Your task to perform on an android device: turn off smart reply in the gmail app Image 0: 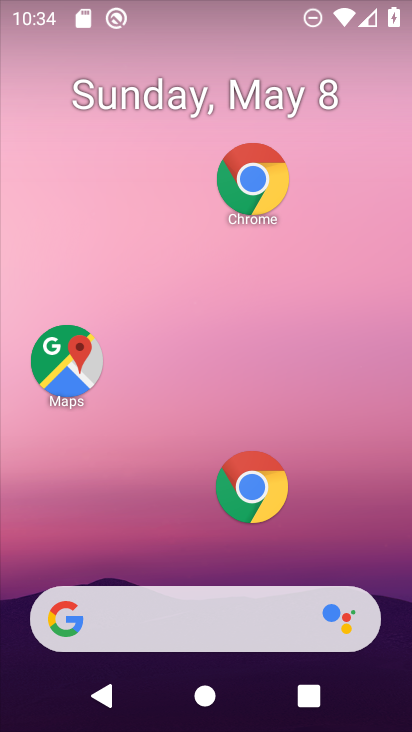
Step 0: drag from (166, 515) to (155, 38)
Your task to perform on an android device: turn off smart reply in the gmail app Image 1: 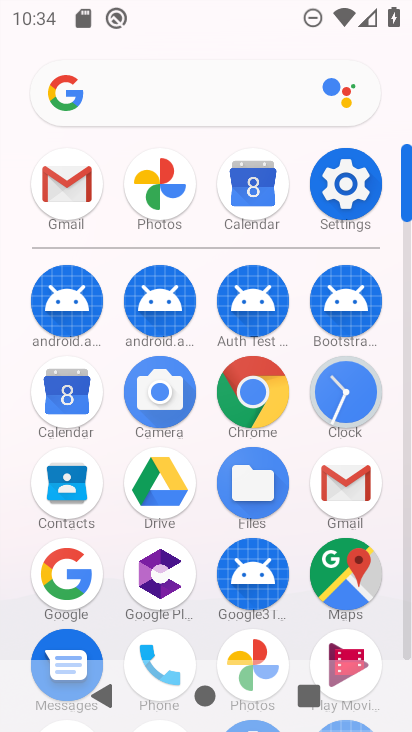
Step 1: click (77, 174)
Your task to perform on an android device: turn off smart reply in the gmail app Image 2: 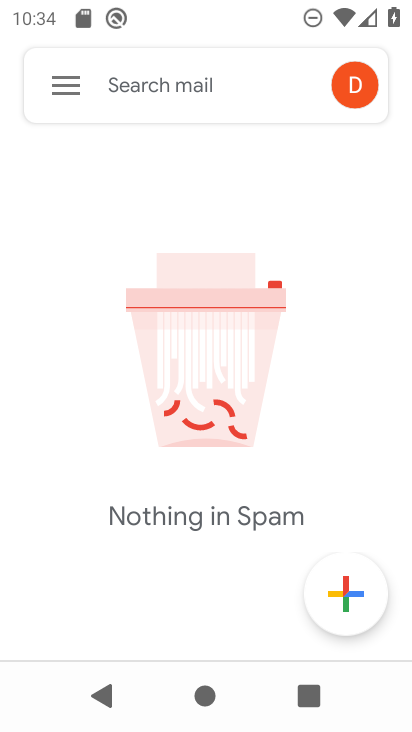
Step 2: click (52, 76)
Your task to perform on an android device: turn off smart reply in the gmail app Image 3: 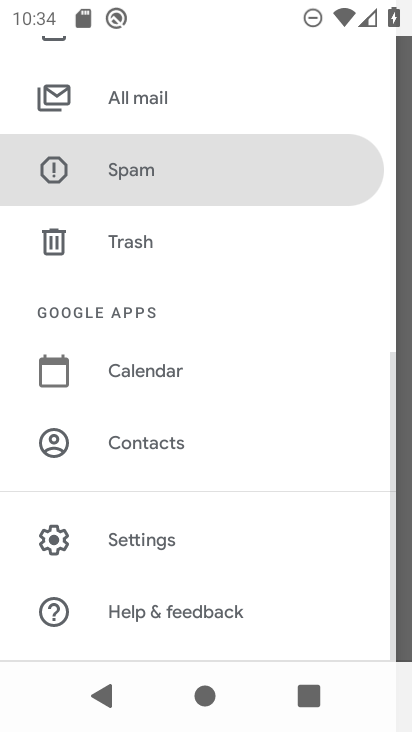
Step 3: click (160, 537)
Your task to perform on an android device: turn off smart reply in the gmail app Image 4: 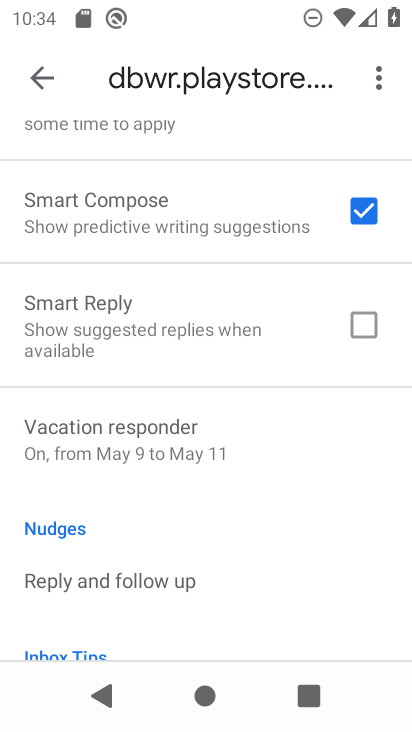
Step 4: task complete